Your task to perform on an android device: turn on showing notifications on the lock screen Image 0: 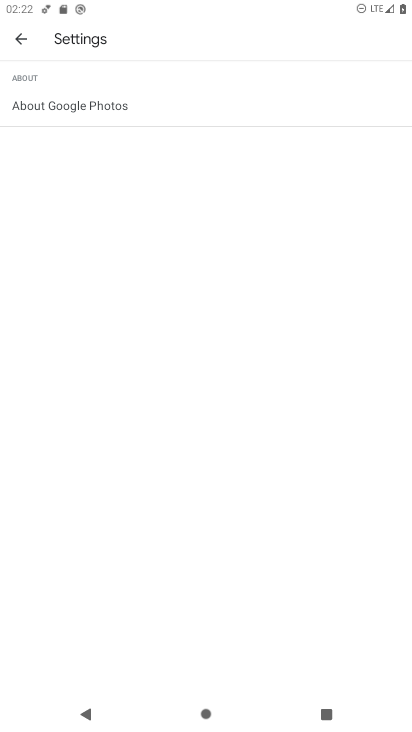
Step 0: press home button
Your task to perform on an android device: turn on showing notifications on the lock screen Image 1: 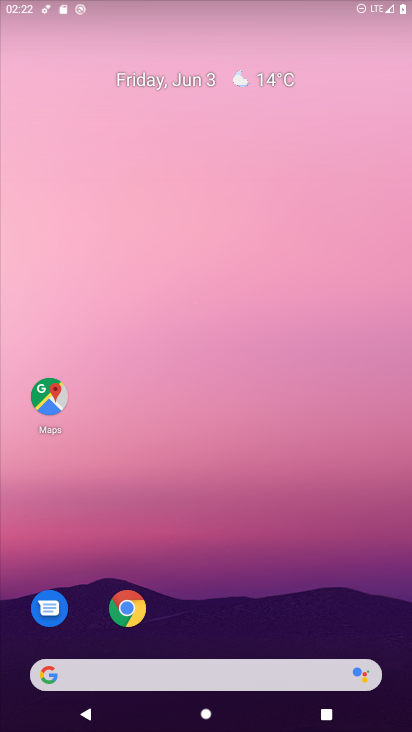
Step 1: drag from (354, 638) to (278, 130)
Your task to perform on an android device: turn on showing notifications on the lock screen Image 2: 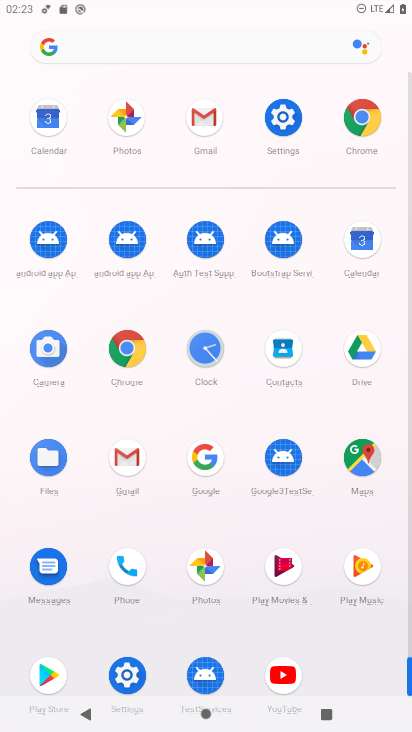
Step 2: click (283, 121)
Your task to perform on an android device: turn on showing notifications on the lock screen Image 3: 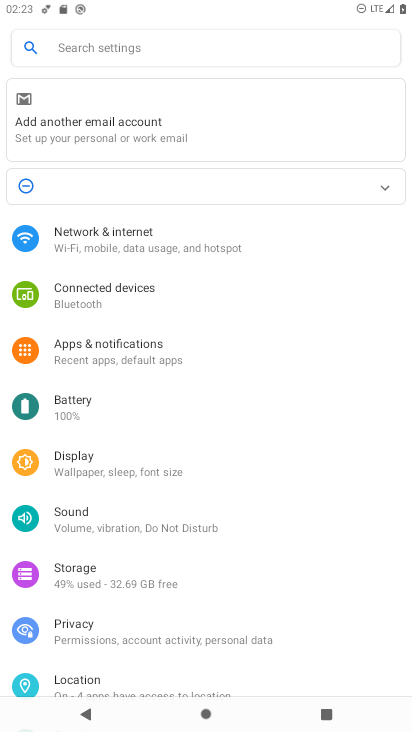
Step 3: click (122, 345)
Your task to perform on an android device: turn on showing notifications on the lock screen Image 4: 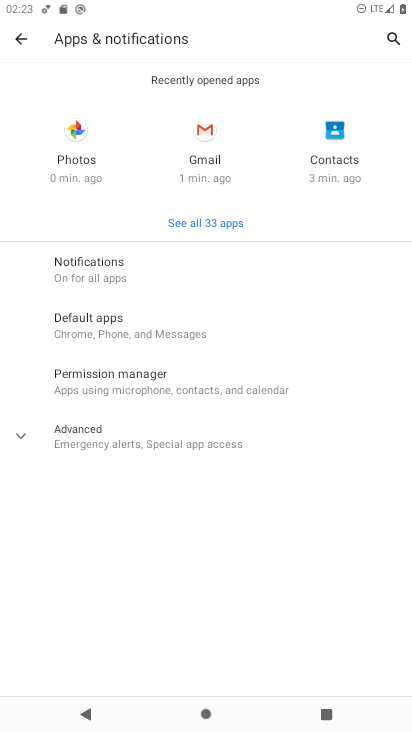
Step 4: click (110, 288)
Your task to perform on an android device: turn on showing notifications on the lock screen Image 5: 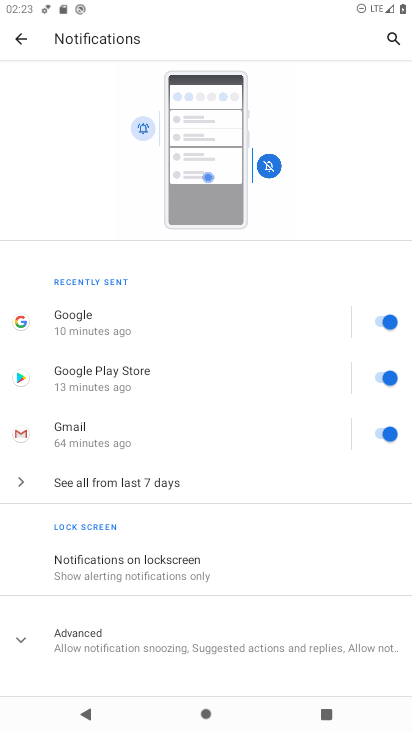
Step 5: click (211, 652)
Your task to perform on an android device: turn on showing notifications on the lock screen Image 6: 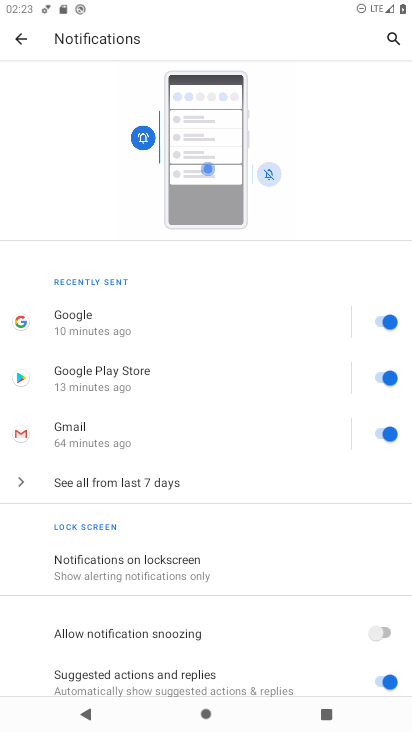
Step 6: click (196, 559)
Your task to perform on an android device: turn on showing notifications on the lock screen Image 7: 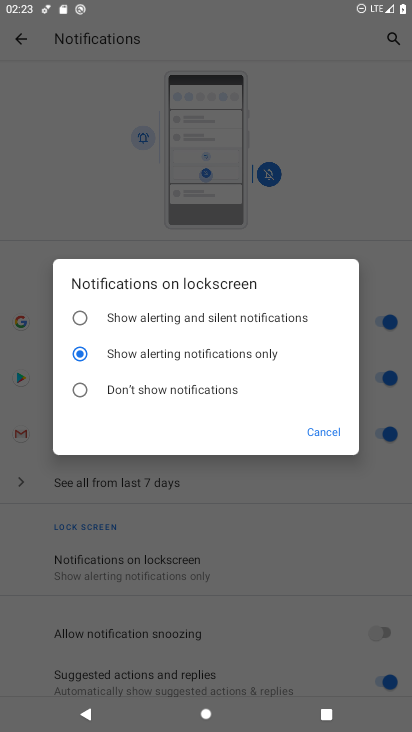
Step 7: click (326, 431)
Your task to perform on an android device: turn on showing notifications on the lock screen Image 8: 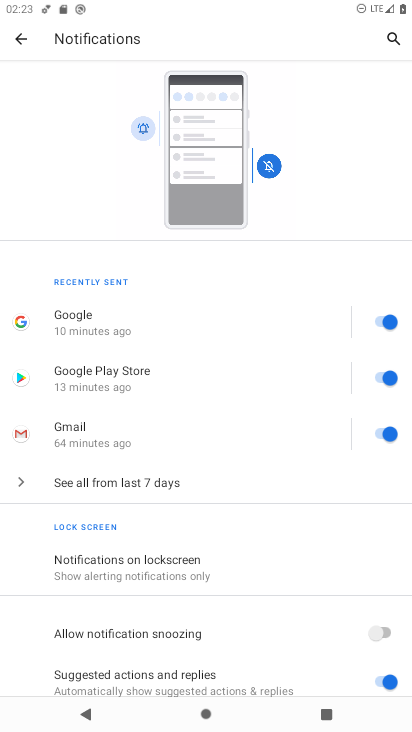
Step 8: drag from (218, 452) to (196, 142)
Your task to perform on an android device: turn on showing notifications on the lock screen Image 9: 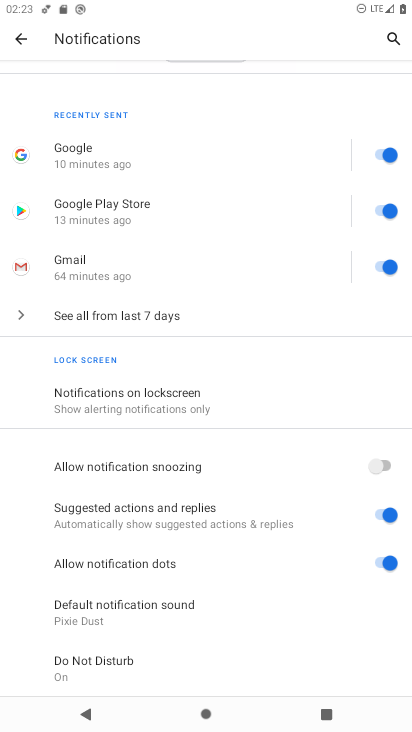
Step 9: click (181, 398)
Your task to perform on an android device: turn on showing notifications on the lock screen Image 10: 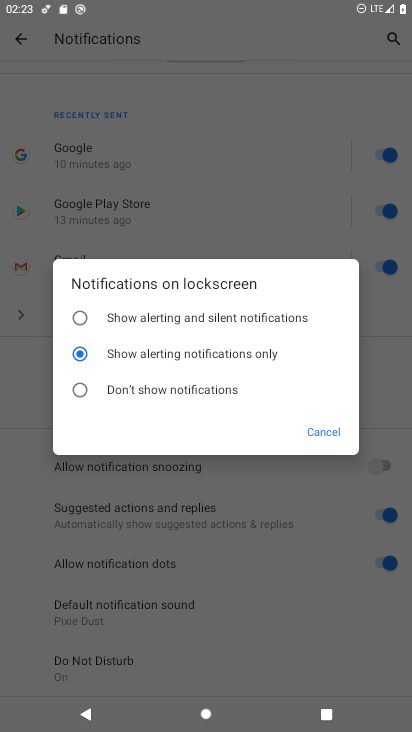
Step 10: task complete